Your task to perform on an android device: turn vacation reply on in the gmail app Image 0: 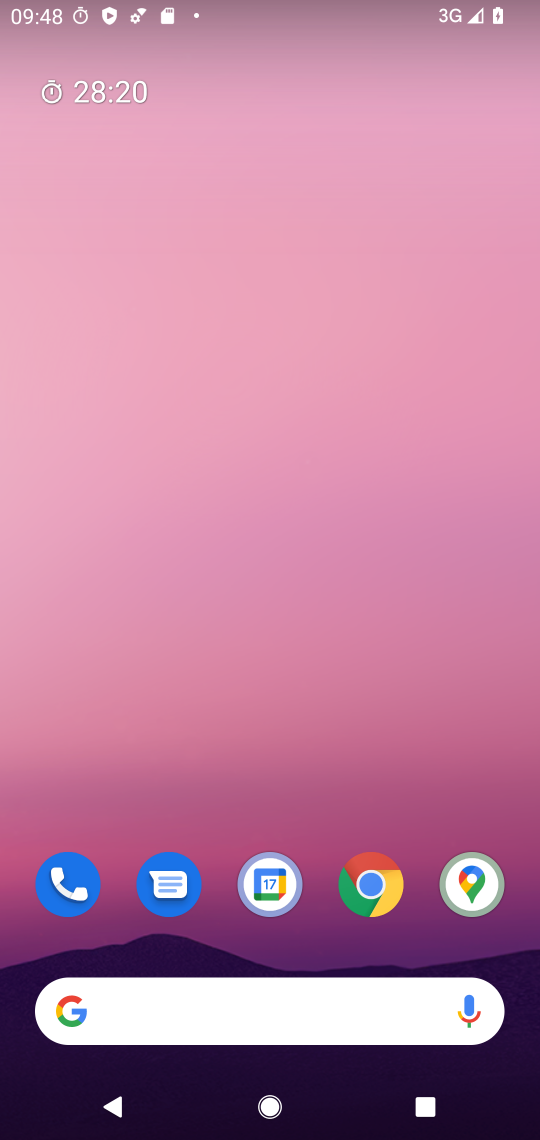
Step 0: drag from (311, 746) to (301, 212)
Your task to perform on an android device: turn vacation reply on in the gmail app Image 1: 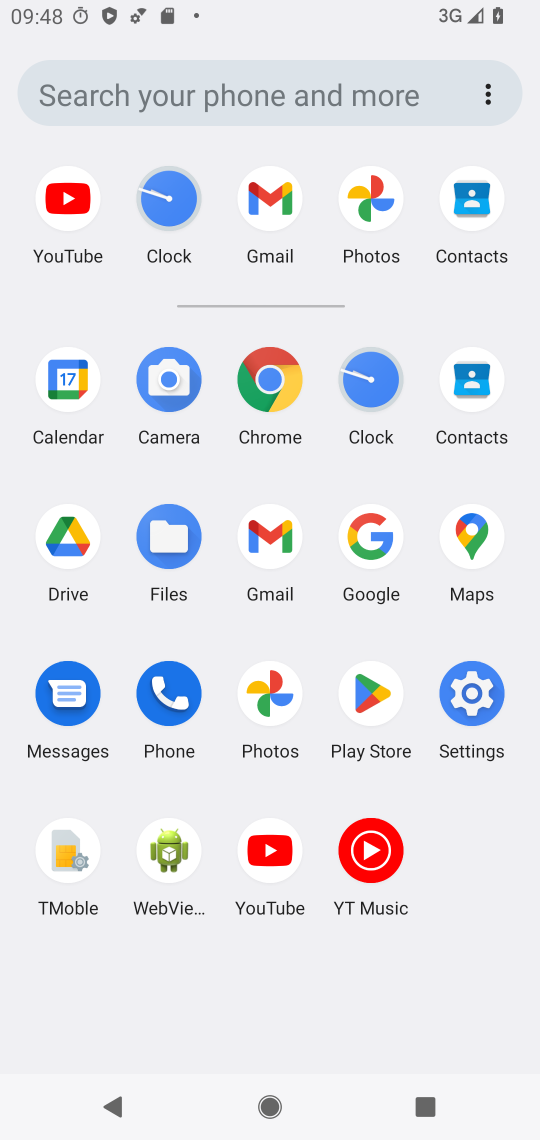
Step 1: click (263, 210)
Your task to perform on an android device: turn vacation reply on in the gmail app Image 2: 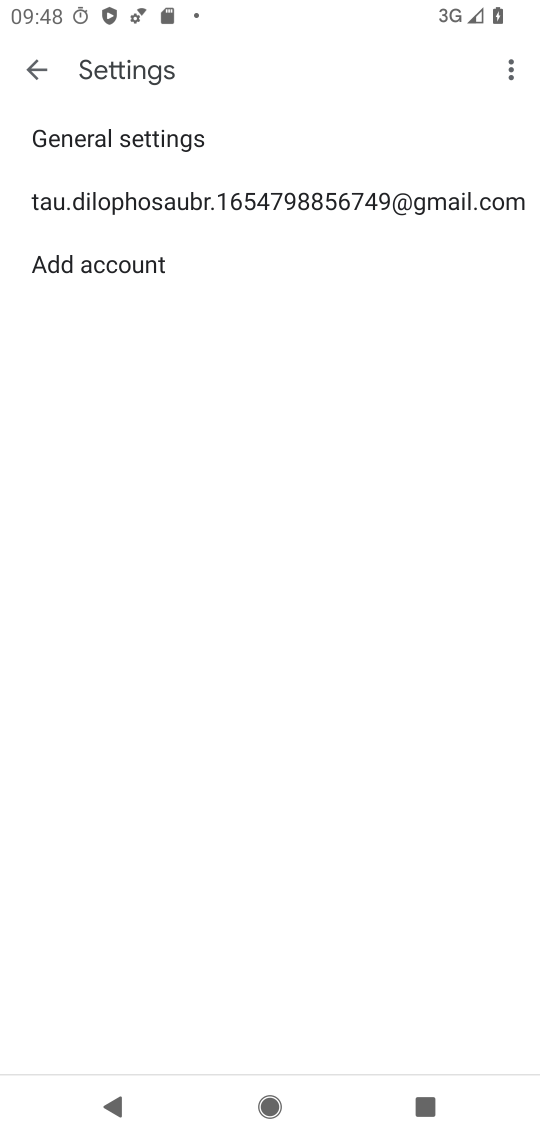
Step 2: click (145, 216)
Your task to perform on an android device: turn vacation reply on in the gmail app Image 3: 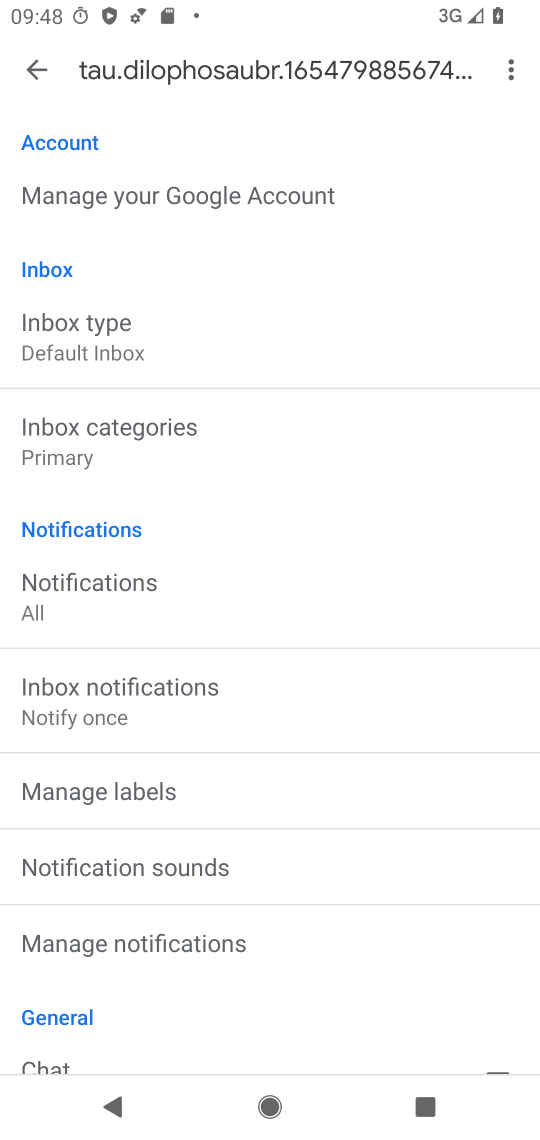
Step 3: drag from (227, 926) to (165, 280)
Your task to perform on an android device: turn vacation reply on in the gmail app Image 4: 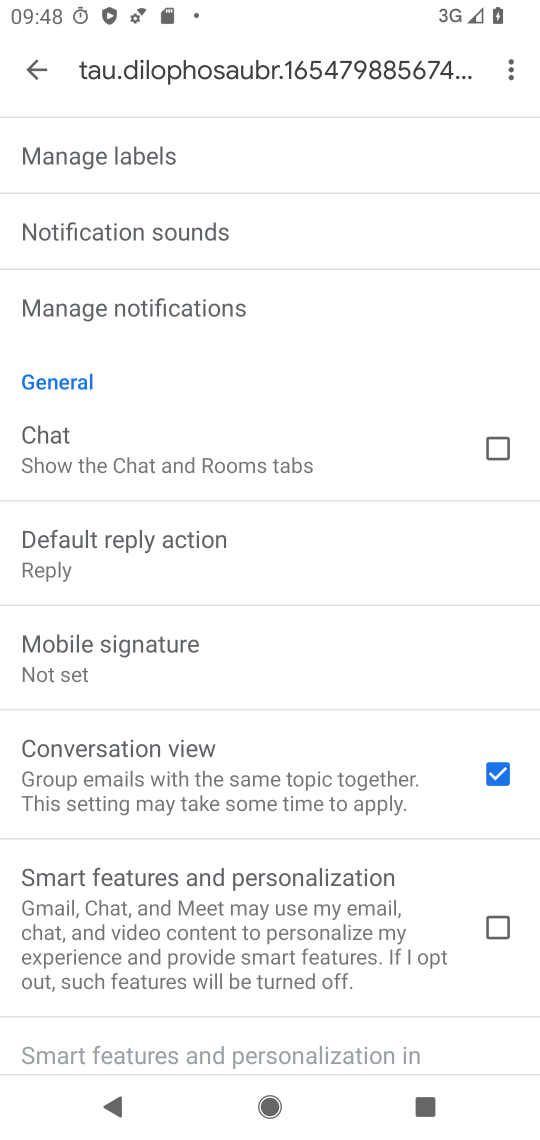
Step 4: drag from (162, 918) to (135, 304)
Your task to perform on an android device: turn vacation reply on in the gmail app Image 5: 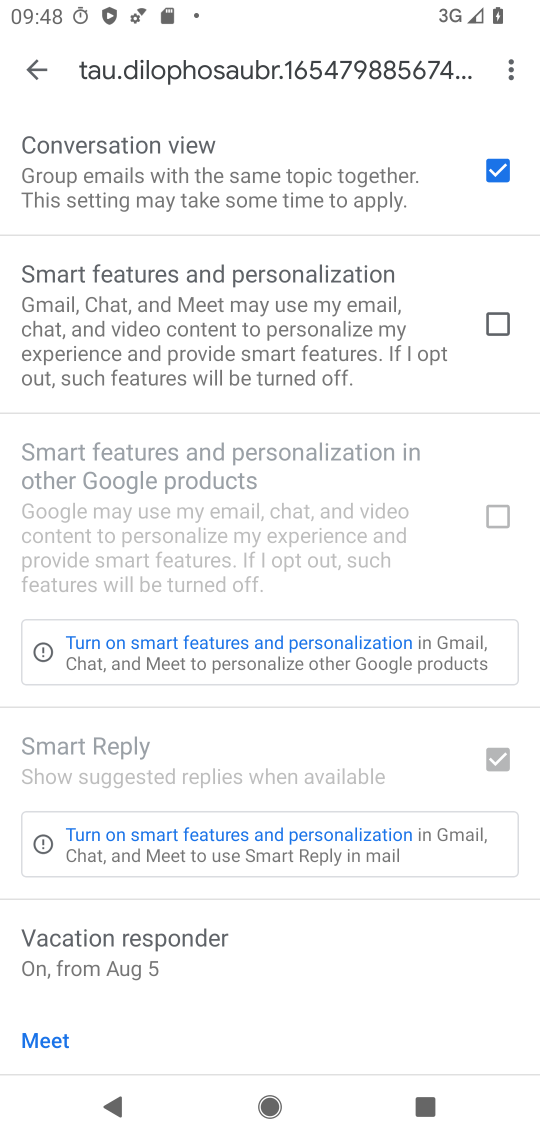
Step 5: drag from (152, 799) to (142, 323)
Your task to perform on an android device: turn vacation reply on in the gmail app Image 6: 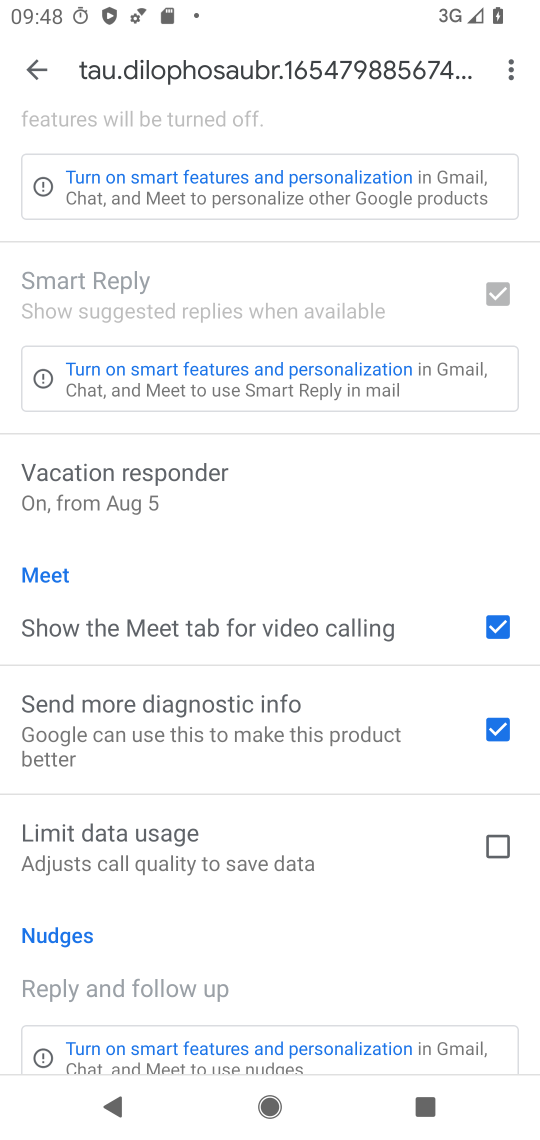
Step 6: click (205, 769)
Your task to perform on an android device: turn vacation reply on in the gmail app Image 7: 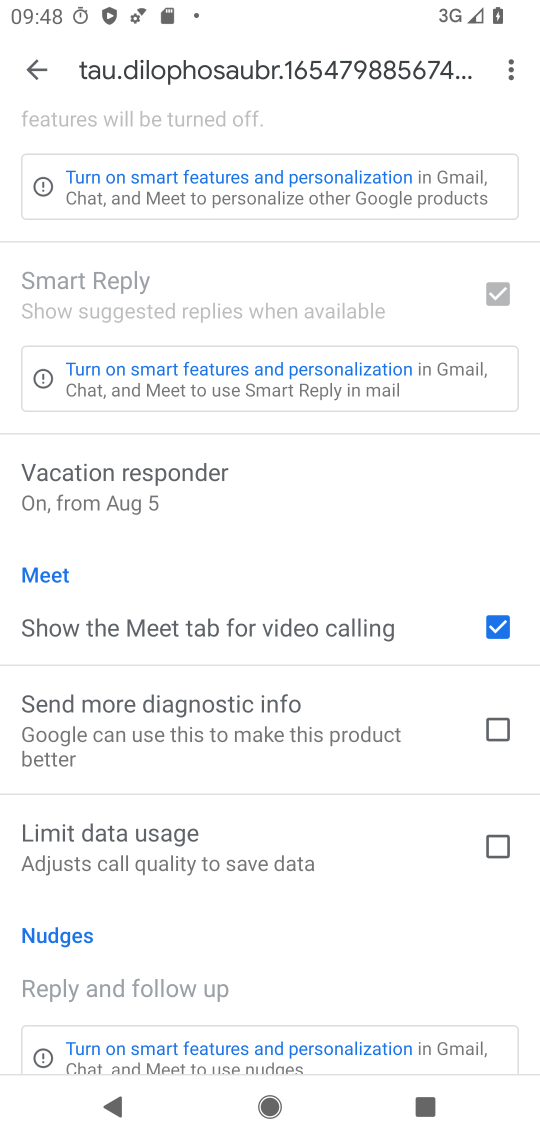
Step 7: click (139, 492)
Your task to perform on an android device: turn vacation reply on in the gmail app Image 8: 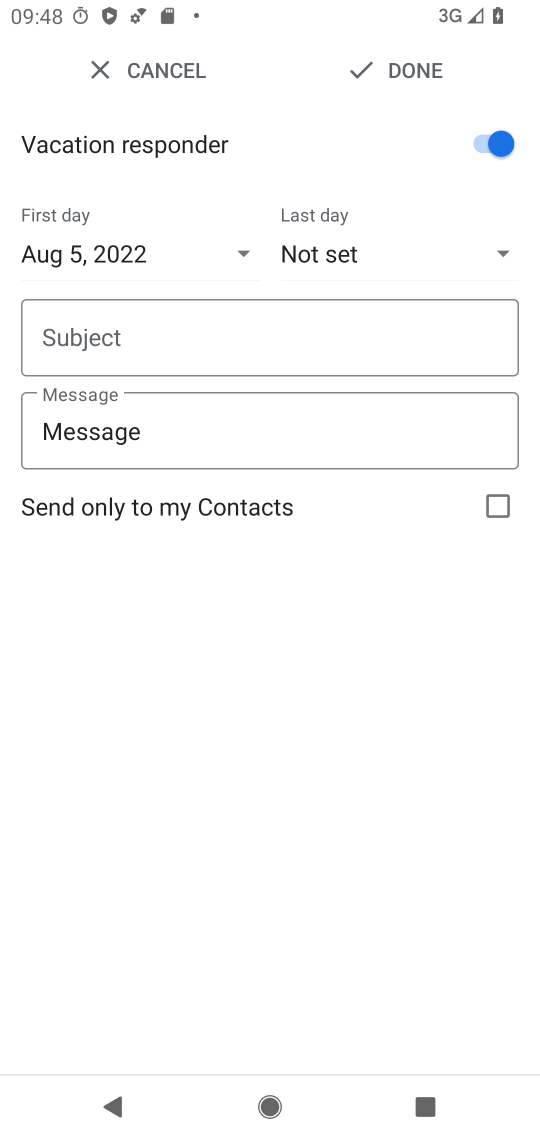
Step 8: task complete